Your task to perform on an android device: find which apps use the phone's location Image 0: 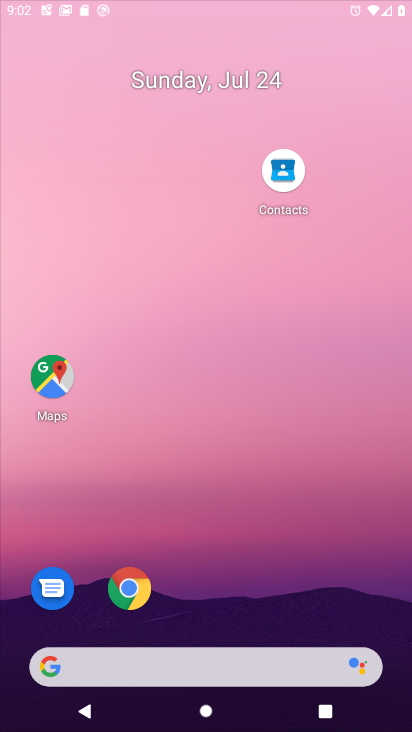
Step 0: click (209, 0)
Your task to perform on an android device: find which apps use the phone's location Image 1: 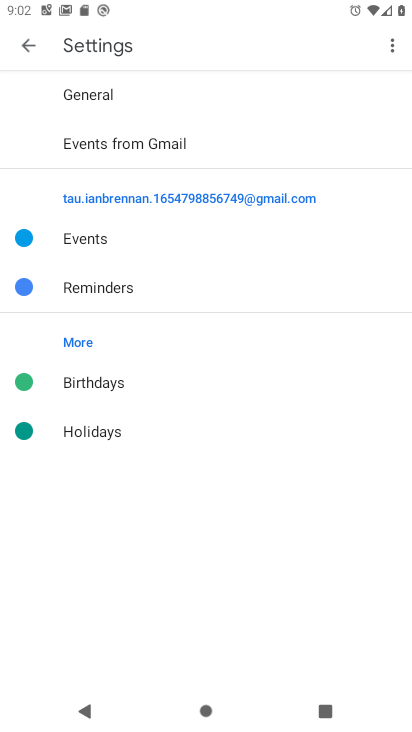
Step 1: press home button
Your task to perform on an android device: find which apps use the phone's location Image 2: 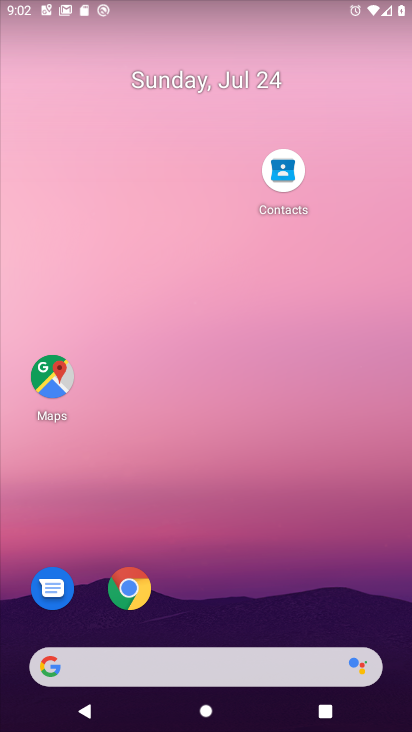
Step 2: drag from (221, 622) to (238, 0)
Your task to perform on an android device: find which apps use the phone's location Image 3: 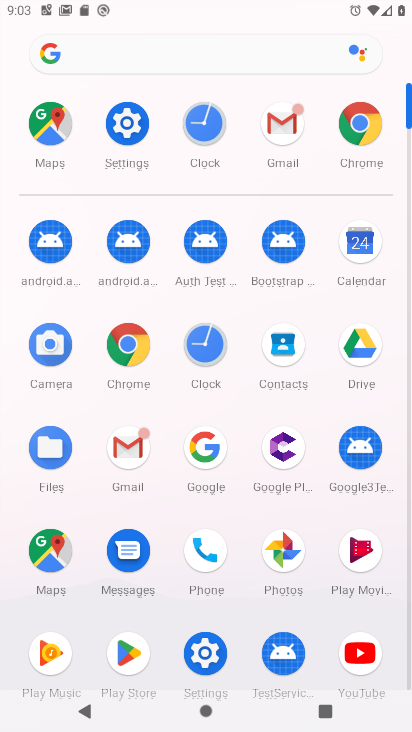
Step 3: click (124, 116)
Your task to perform on an android device: find which apps use the phone's location Image 4: 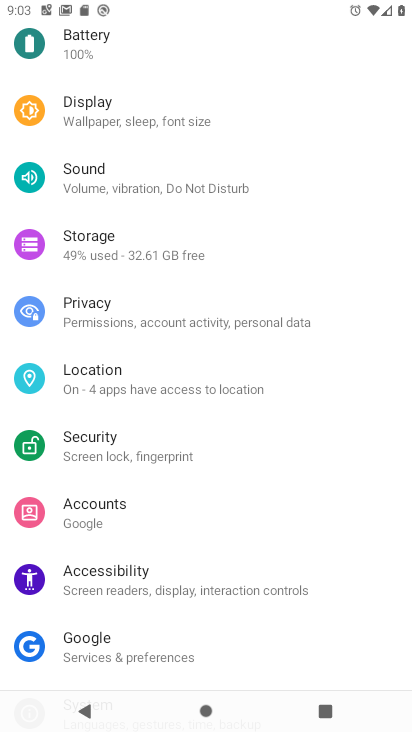
Step 4: click (130, 370)
Your task to perform on an android device: find which apps use the phone's location Image 5: 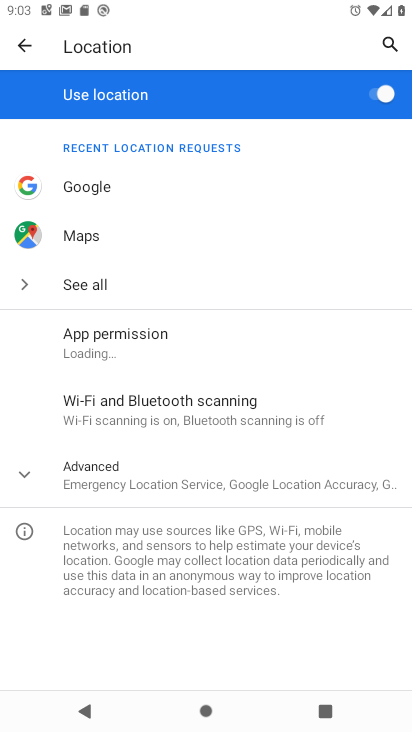
Step 5: click (26, 470)
Your task to perform on an android device: find which apps use the phone's location Image 6: 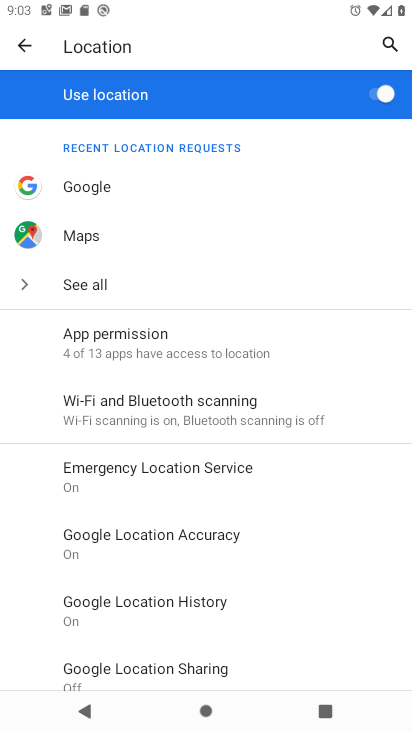
Step 6: click (53, 342)
Your task to perform on an android device: find which apps use the phone's location Image 7: 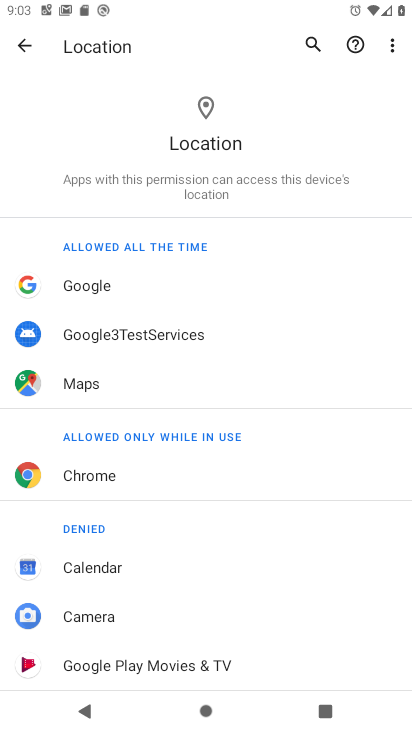
Step 7: task complete